Your task to perform on an android device: Search for pizza restaurants on Maps Image 0: 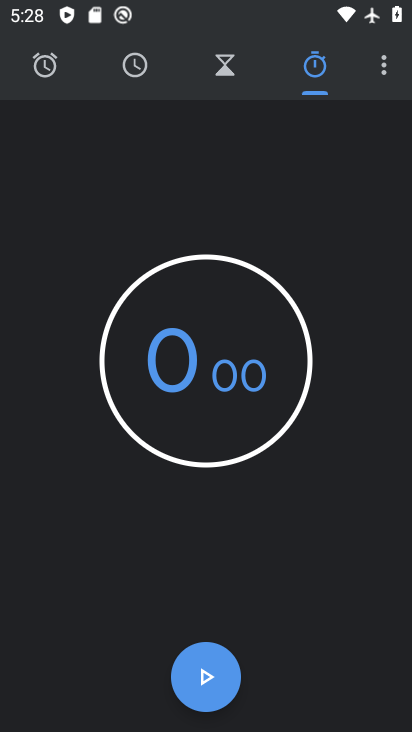
Step 0: press home button
Your task to perform on an android device: Search for pizza restaurants on Maps Image 1: 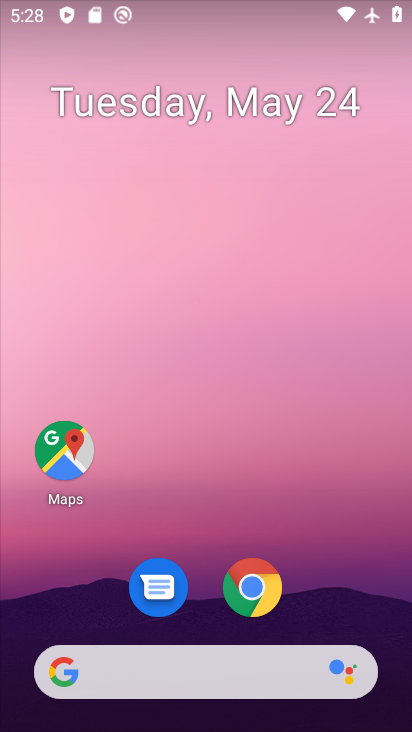
Step 1: click (66, 443)
Your task to perform on an android device: Search for pizza restaurants on Maps Image 2: 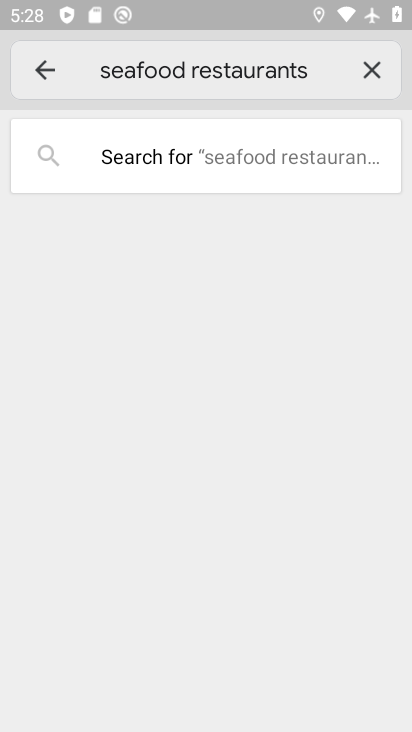
Step 2: click (375, 73)
Your task to perform on an android device: Search for pizza restaurants on Maps Image 3: 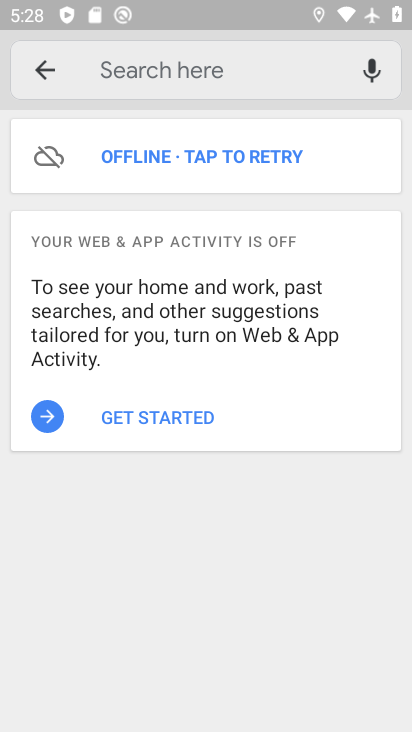
Step 3: click (174, 85)
Your task to perform on an android device: Search for pizza restaurants on Maps Image 4: 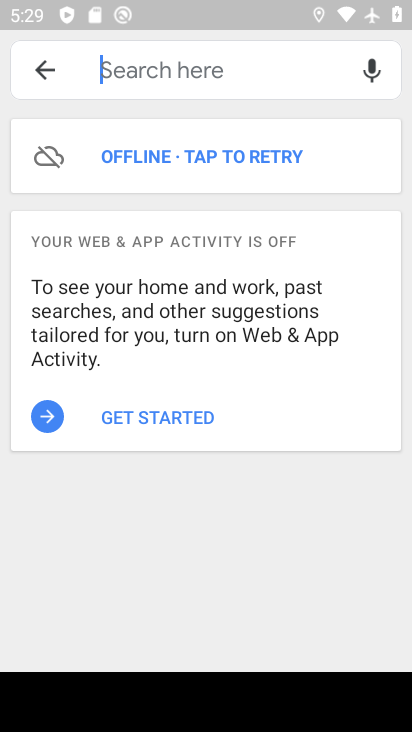
Step 4: type "pizza restaurants"
Your task to perform on an android device: Search for pizza restaurants on Maps Image 5: 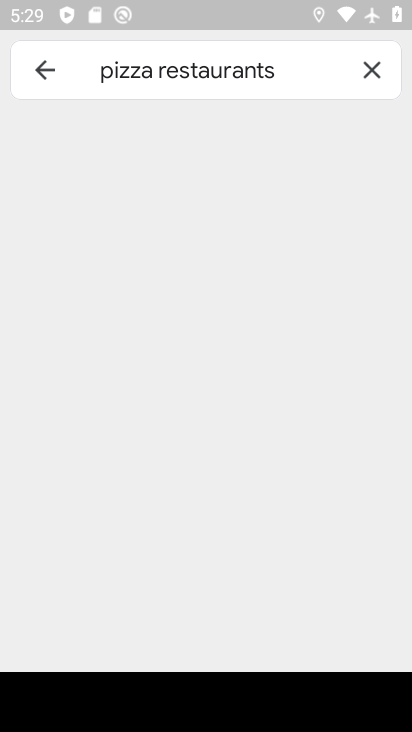
Step 5: task complete